Your task to perform on an android device: open sync settings in chrome Image 0: 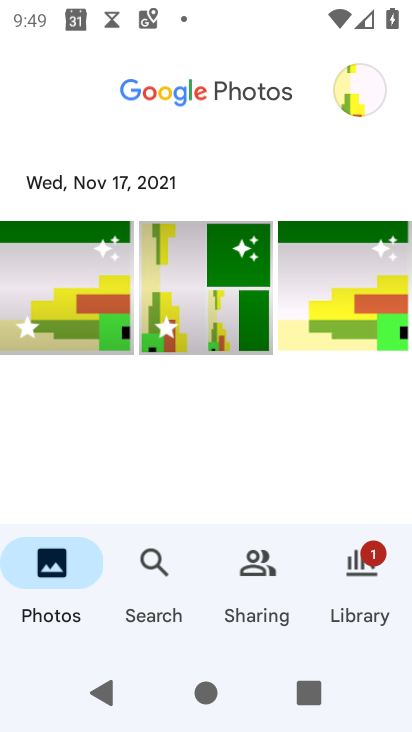
Step 0: press home button
Your task to perform on an android device: open sync settings in chrome Image 1: 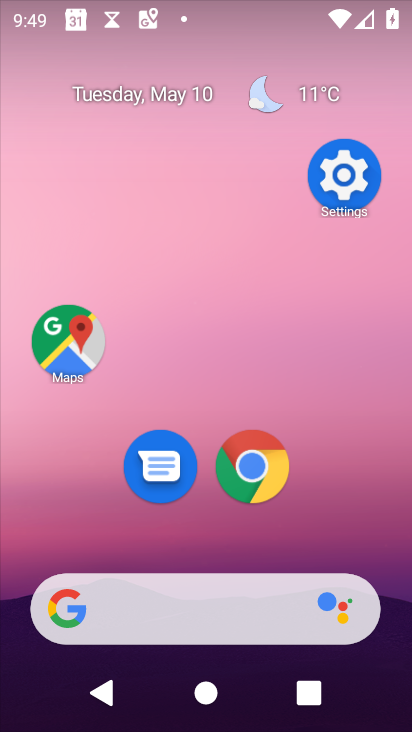
Step 1: click (232, 470)
Your task to perform on an android device: open sync settings in chrome Image 2: 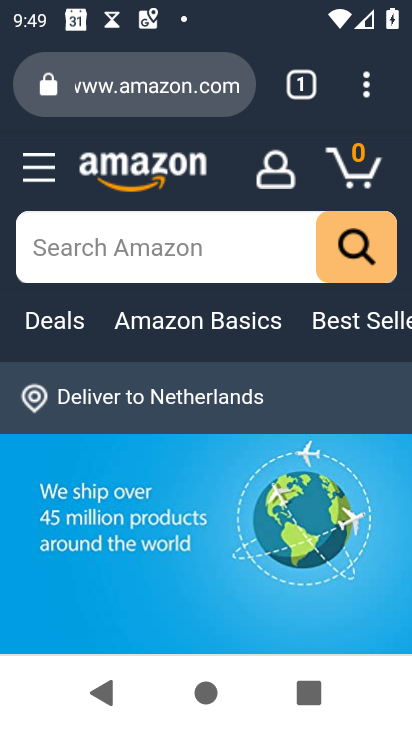
Step 2: click (361, 96)
Your task to perform on an android device: open sync settings in chrome Image 3: 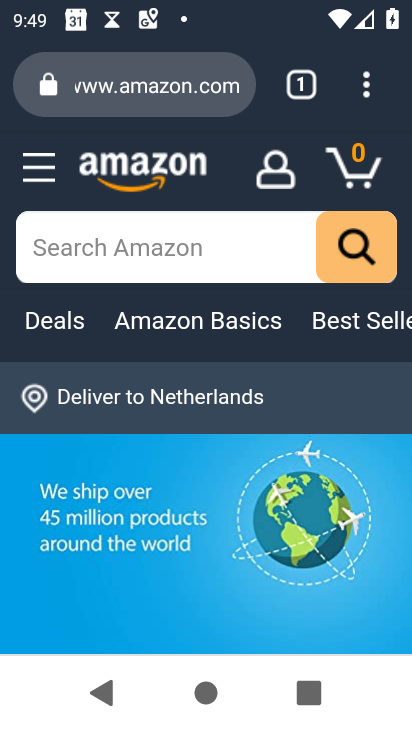
Step 3: click (362, 96)
Your task to perform on an android device: open sync settings in chrome Image 4: 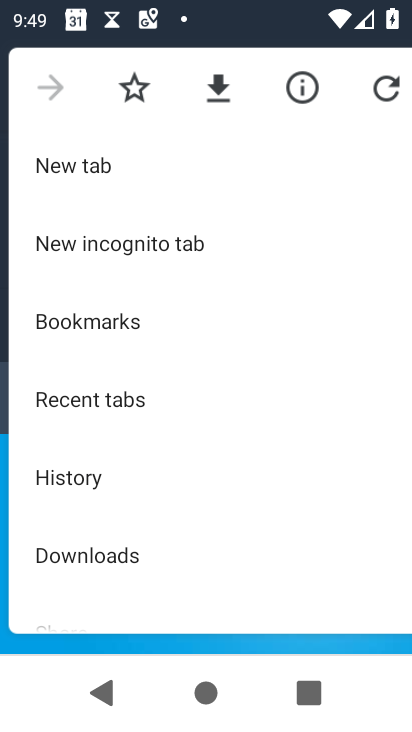
Step 4: drag from (188, 533) to (205, 201)
Your task to perform on an android device: open sync settings in chrome Image 5: 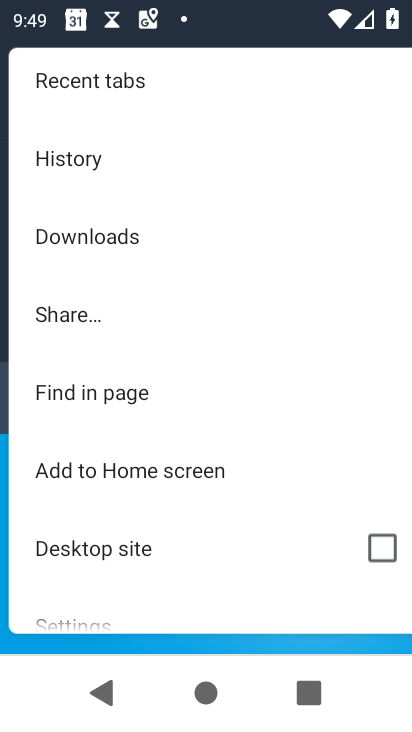
Step 5: drag from (222, 522) to (221, 276)
Your task to perform on an android device: open sync settings in chrome Image 6: 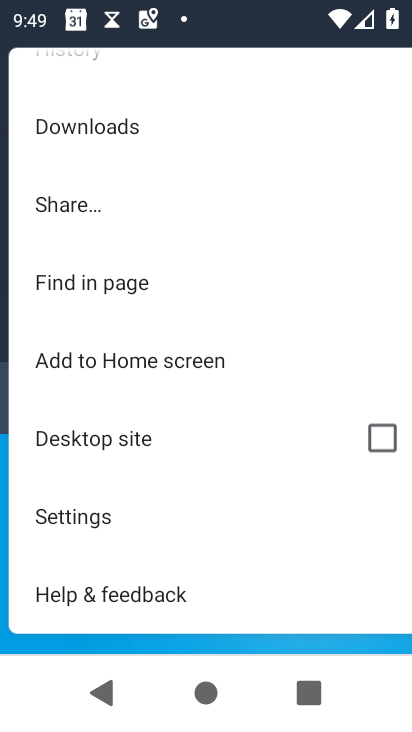
Step 6: click (140, 521)
Your task to perform on an android device: open sync settings in chrome Image 7: 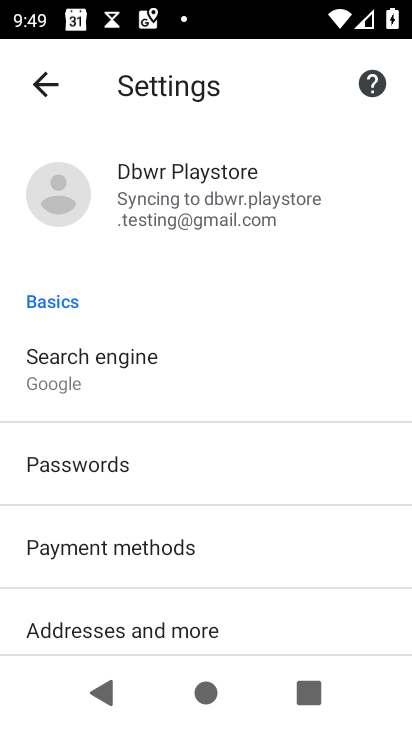
Step 7: click (190, 206)
Your task to perform on an android device: open sync settings in chrome Image 8: 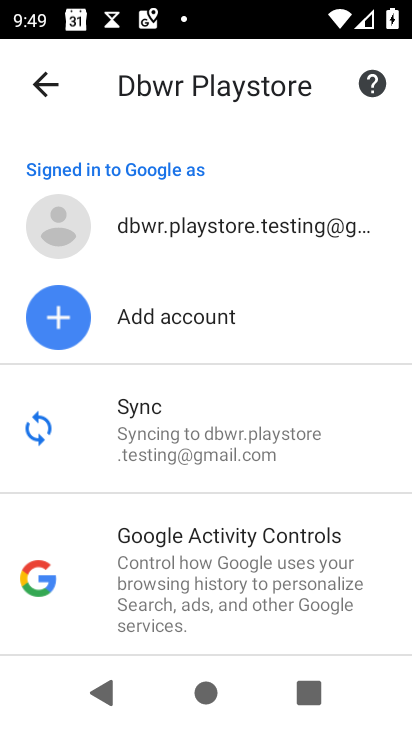
Step 8: click (248, 446)
Your task to perform on an android device: open sync settings in chrome Image 9: 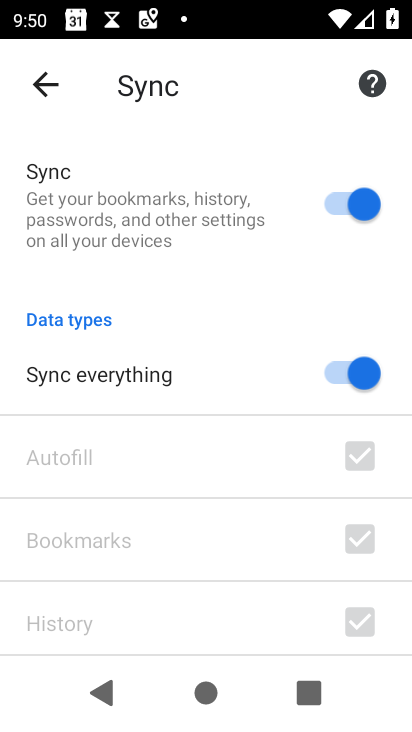
Step 9: task complete